Your task to perform on an android device: add a contact Image 0: 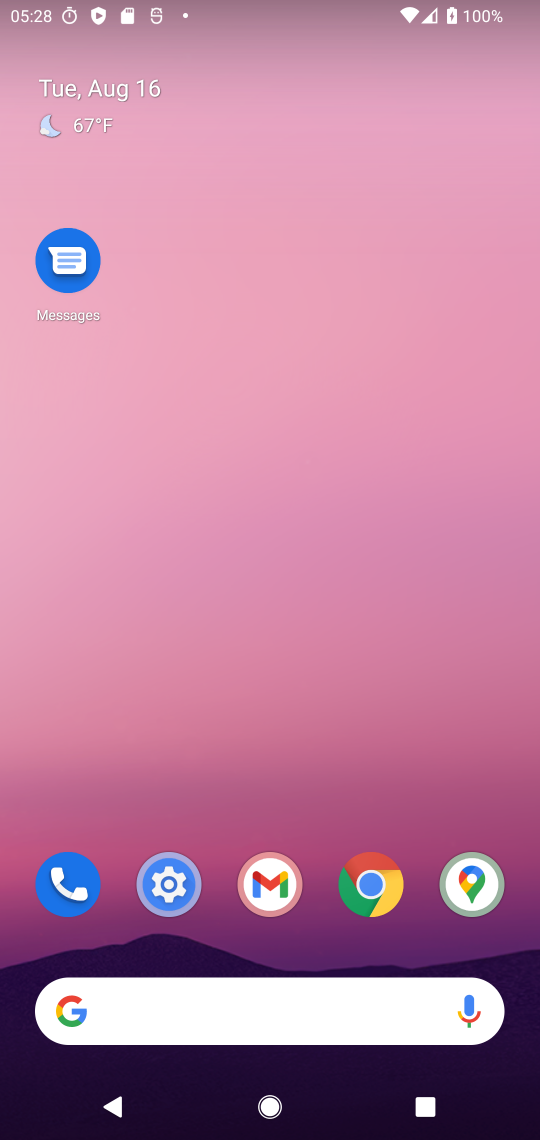
Step 0: drag from (34, 1112) to (319, 371)
Your task to perform on an android device: add a contact Image 1: 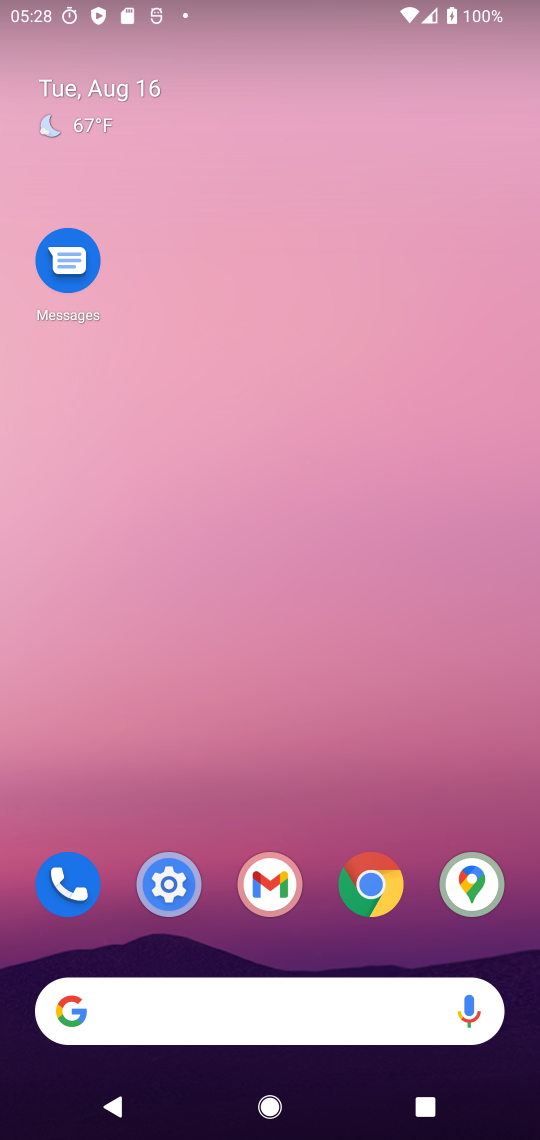
Step 1: drag from (36, 1117) to (239, 375)
Your task to perform on an android device: add a contact Image 2: 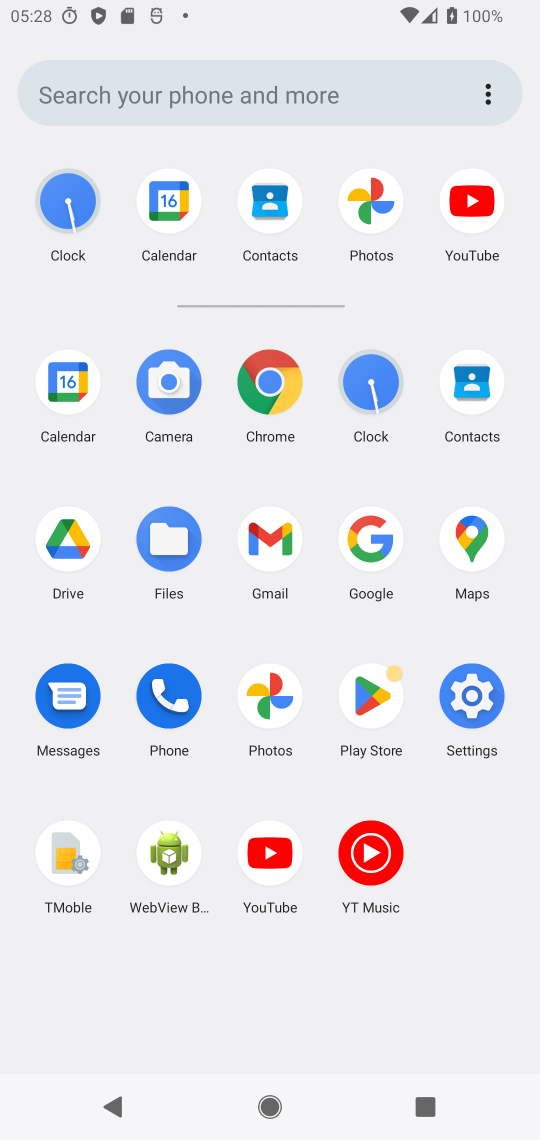
Step 2: click (168, 727)
Your task to perform on an android device: add a contact Image 3: 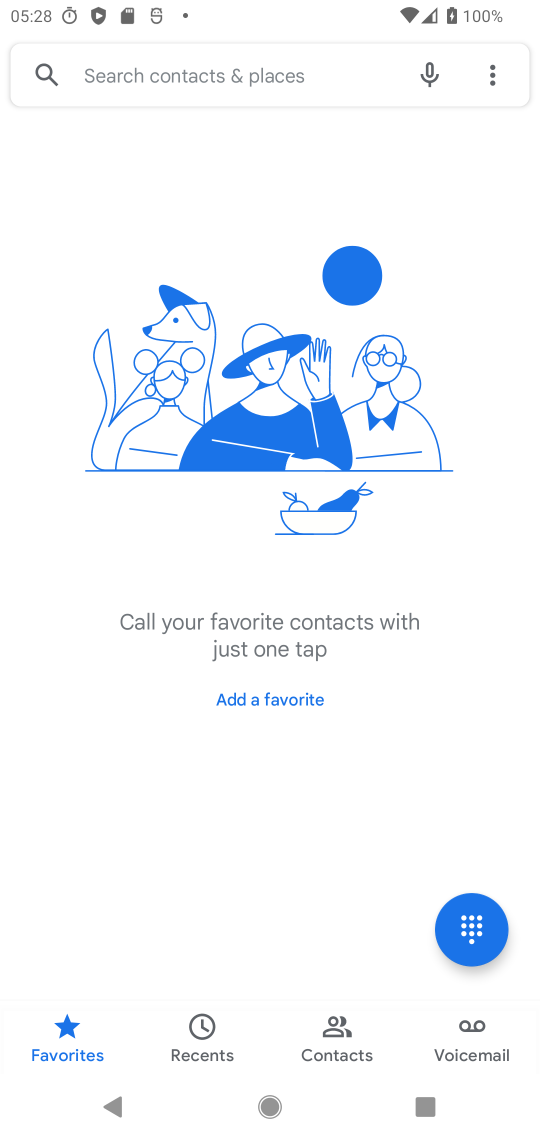
Step 3: click (345, 1042)
Your task to perform on an android device: add a contact Image 4: 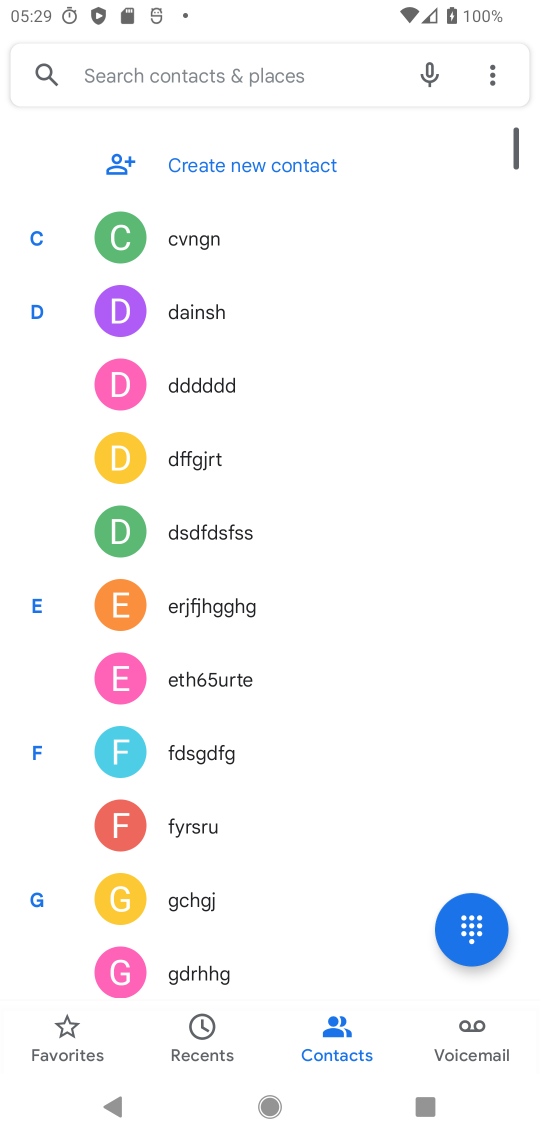
Step 4: click (252, 174)
Your task to perform on an android device: add a contact Image 5: 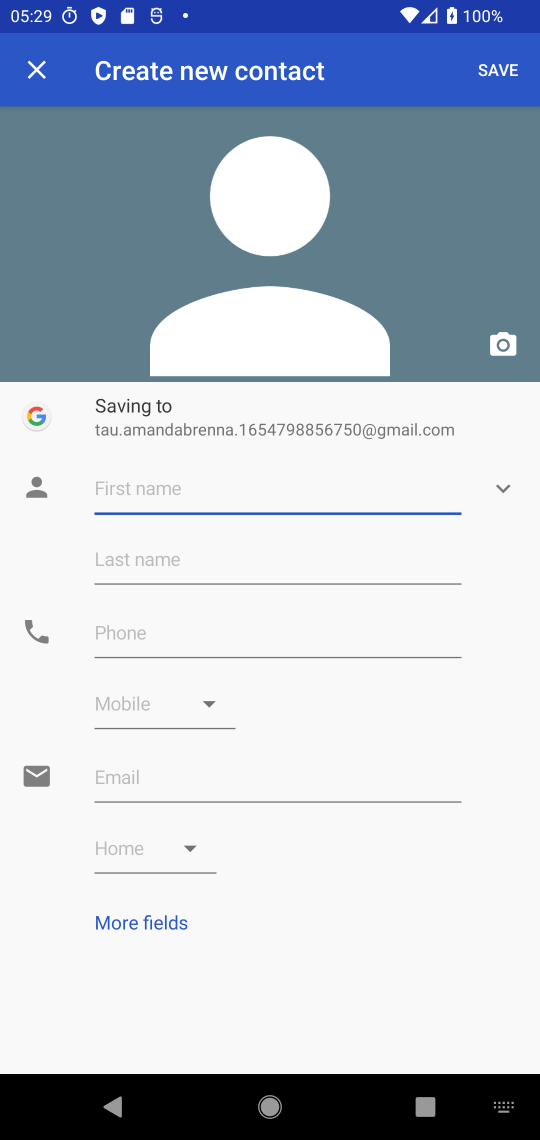
Step 5: type "sdgreh"
Your task to perform on an android device: add a contact Image 6: 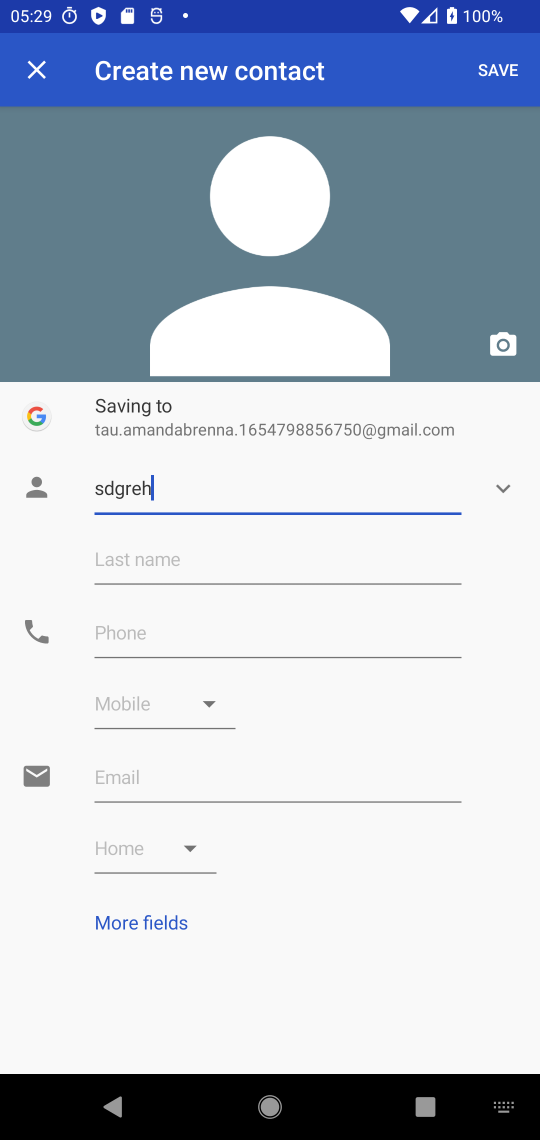
Step 6: click (504, 76)
Your task to perform on an android device: add a contact Image 7: 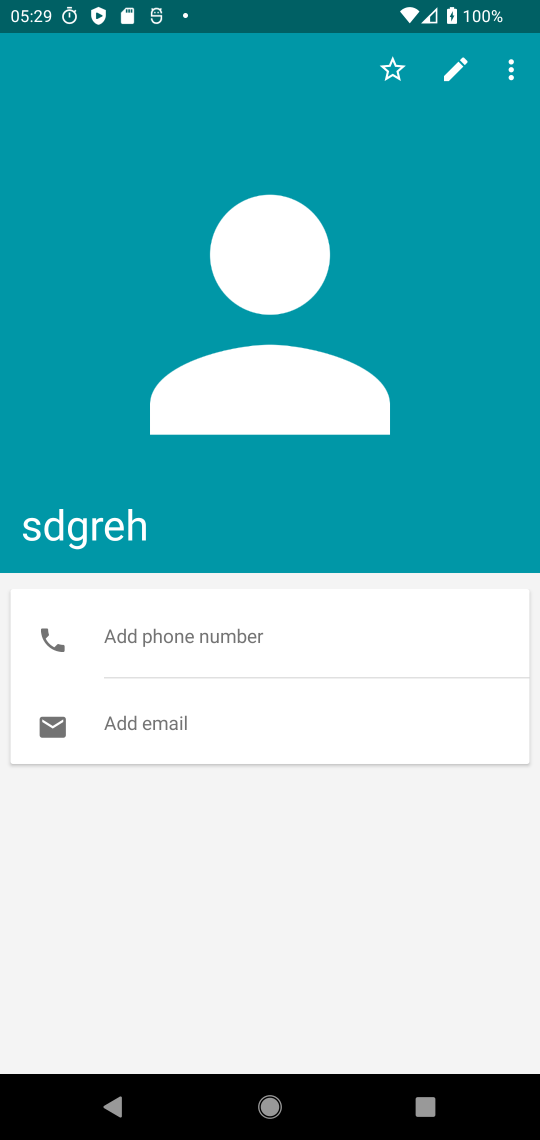
Step 7: task complete